Your task to perform on an android device: visit the assistant section in the google photos Image 0: 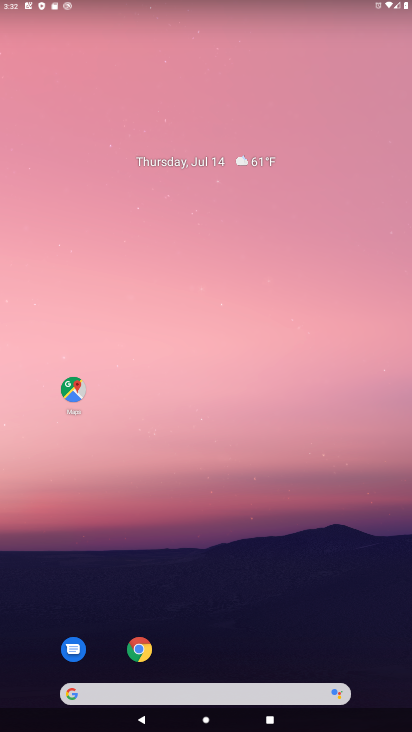
Step 0: drag from (194, 632) to (153, 58)
Your task to perform on an android device: visit the assistant section in the google photos Image 1: 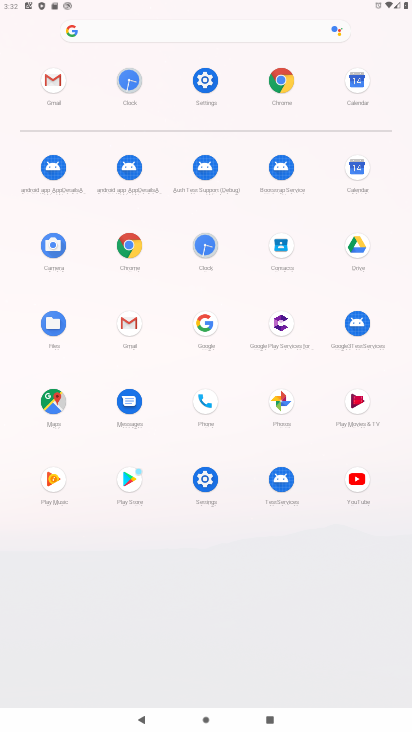
Step 1: click (270, 418)
Your task to perform on an android device: visit the assistant section in the google photos Image 2: 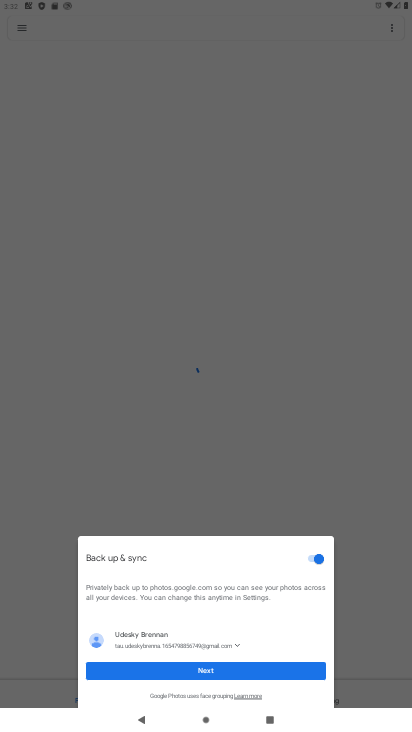
Step 2: click (194, 672)
Your task to perform on an android device: visit the assistant section in the google photos Image 3: 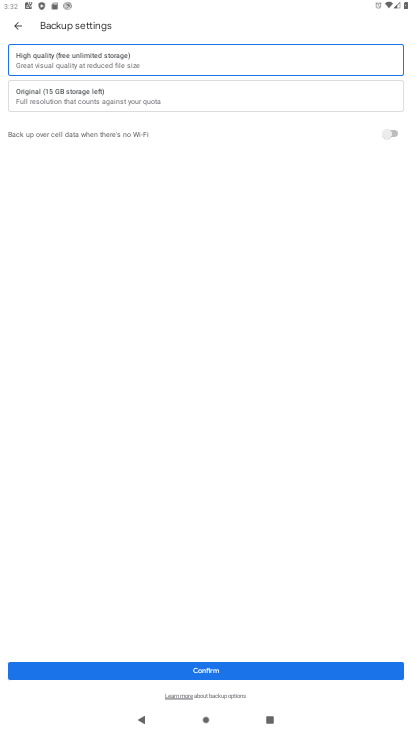
Step 3: click (229, 667)
Your task to perform on an android device: visit the assistant section in the google photos Image 4: 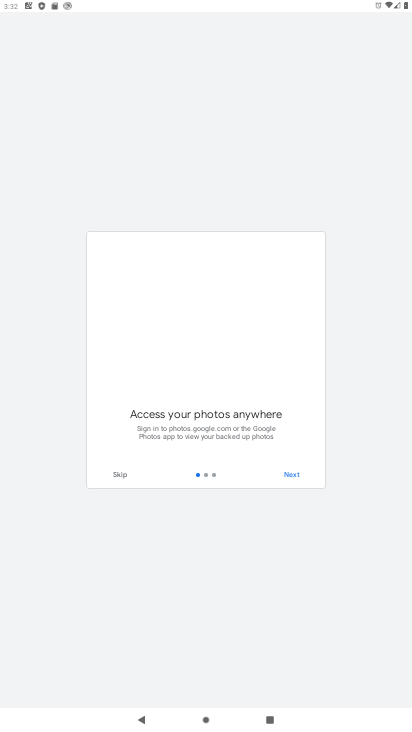
Step 4: click (273, 476)
Your task to perform on an android device: visit the assistant section in the google photos Image 5: 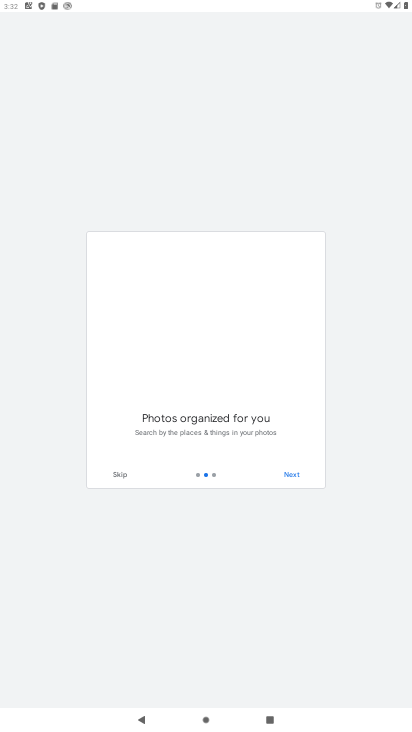
Step 5: click (274, 475)
Your task to perform on an android device: visit the assistant section in the google photos Image 6: 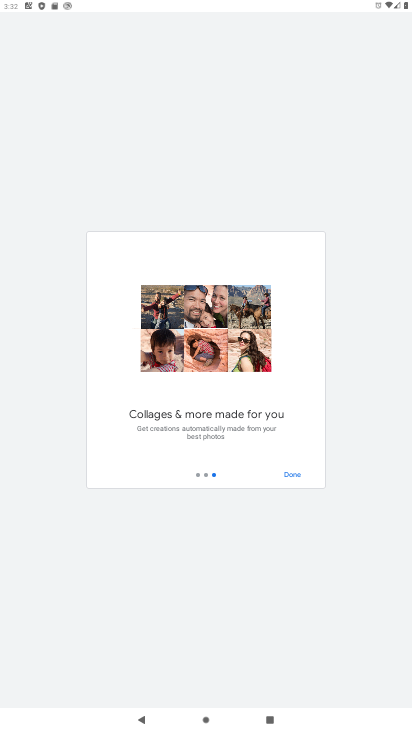
Step 6: click (274, 475)
Your task to perform on an android device: visit the assistant section in the google photos Image 7: 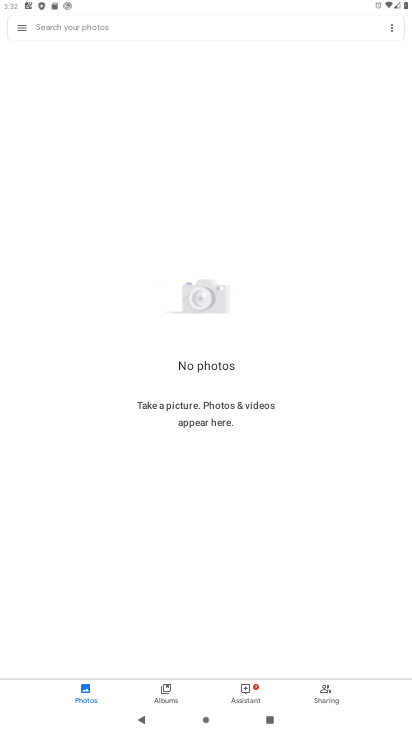
Step 7: click (247, 694)
Your task to perform on an android device: visit the assistant section in the google photos Image 8: 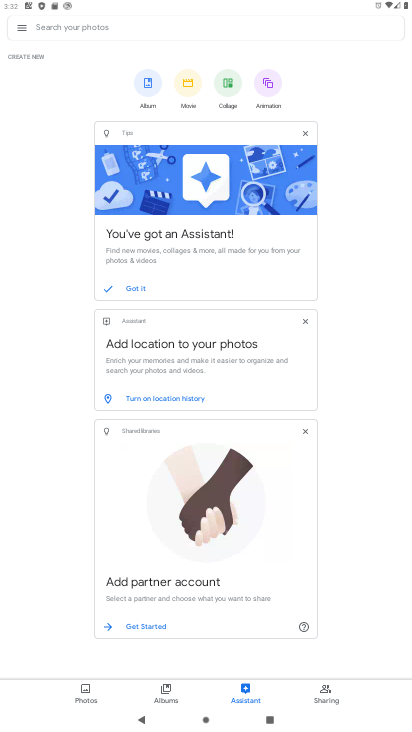
Step 8: task complete